Your task to perform on an android device: Open the map Image 0: 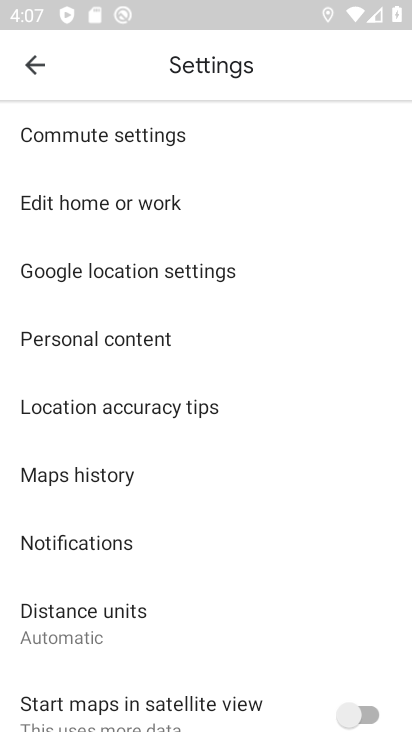
Step 0: press home button
Your task to perform on an android device: Open the map Image 1: 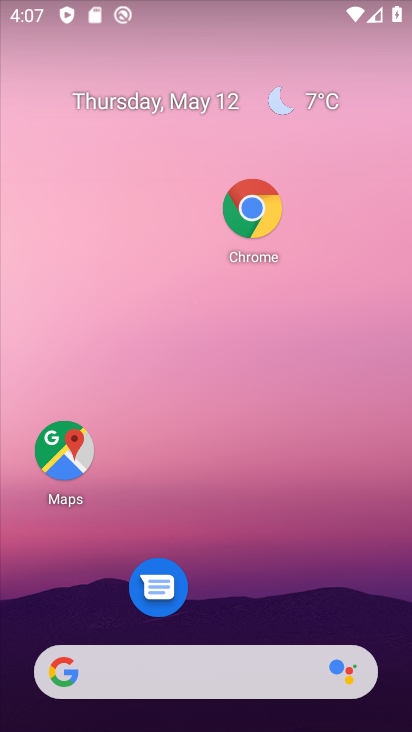
Step 1: click (53, 446)
Your task to perform on an android device: Open the map Image 2: 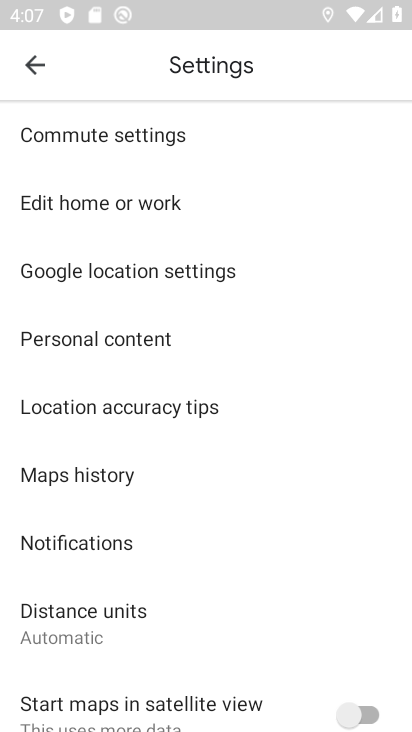
Step 2: click (28, 67)
Your task to perform on an android device: Open the map Image 3: 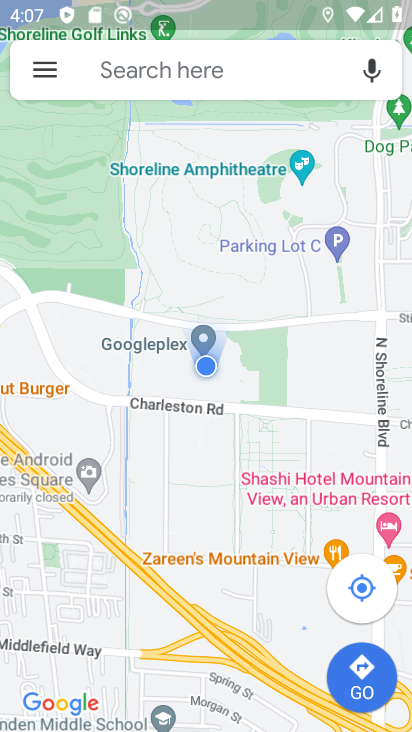
Step 3: task complete